Your task to perform on an android device: choose inbox layout in the gmail app Image 0: 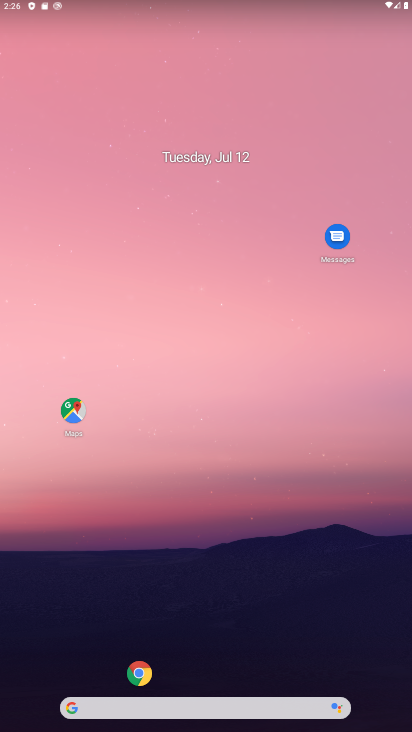
Step 0: drag from (17, 717) to (252, 9)
Your task to perform on an android device: choose inbox layout in the gmail app Image 1: 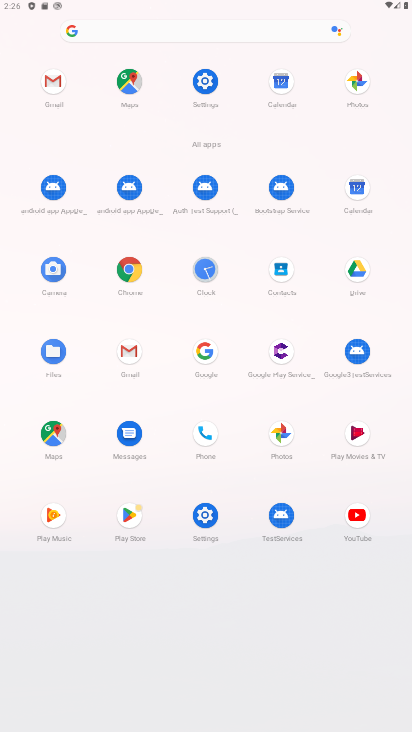
Step 1: click (135, 353)
Your task to perform on an android device: choose inbox layout in the gmail app Image 2: 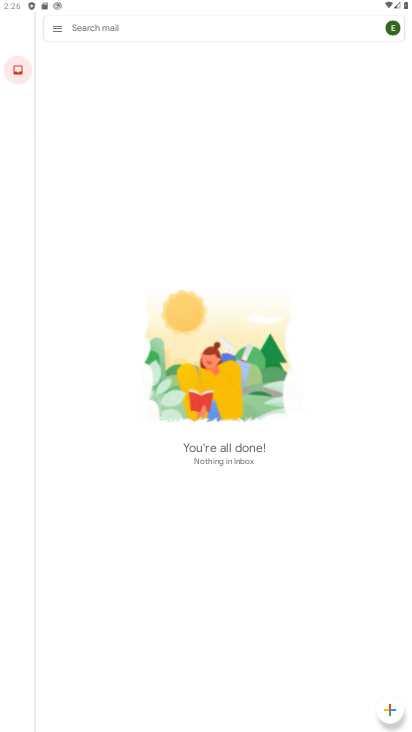
Step 2: click (61, 26)
Your task to perform on an android device: choose inbox layout in the gmail app Image 3: 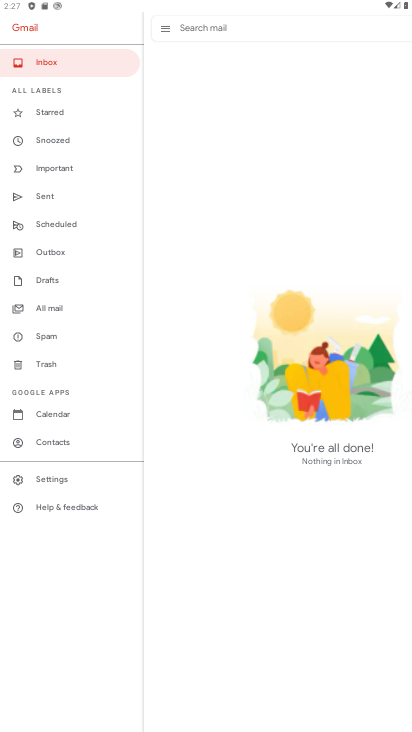
Step 3: click (69, 66)
Your task to perform on an android device: choose inbox layout in the gmail app Image 4: 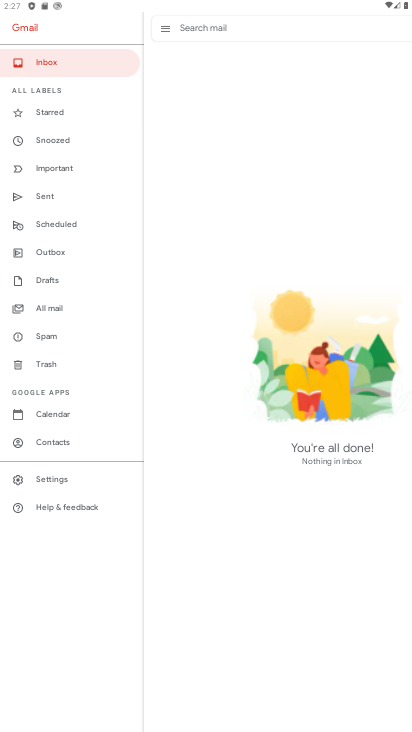
Step 4: click (59, 53)
Your task to perform on an android device: choose inbox layout in the gmail app Image 5: 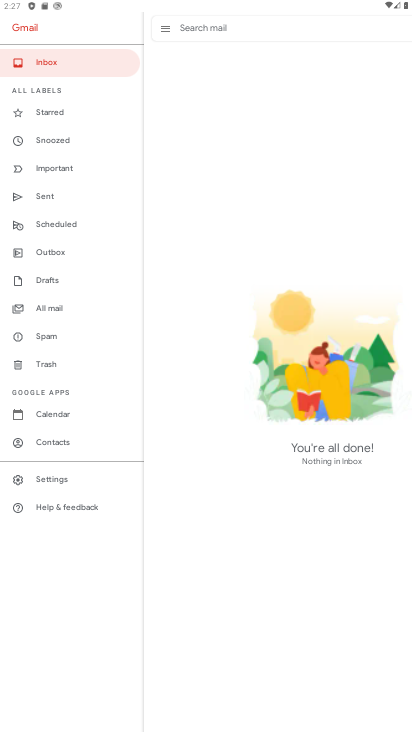
Step 5: click (56, 62)
Your task to perform on an android device: choose inbox layout in the gmail app Image 6: 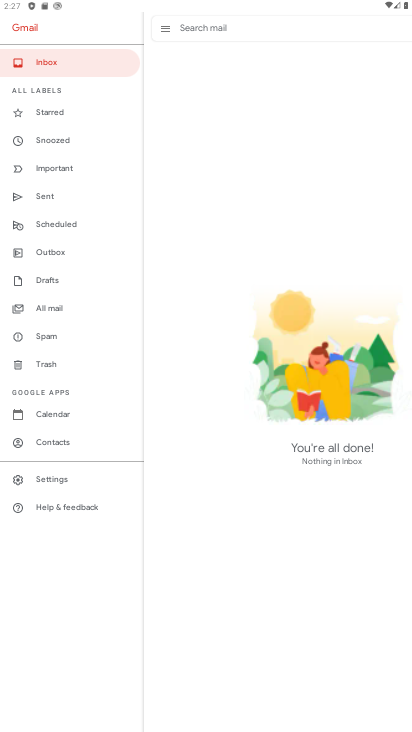
Step 6: click (73, 58)
Your task to perform on an android device: choose inbox layout in the gmail app Image 7: 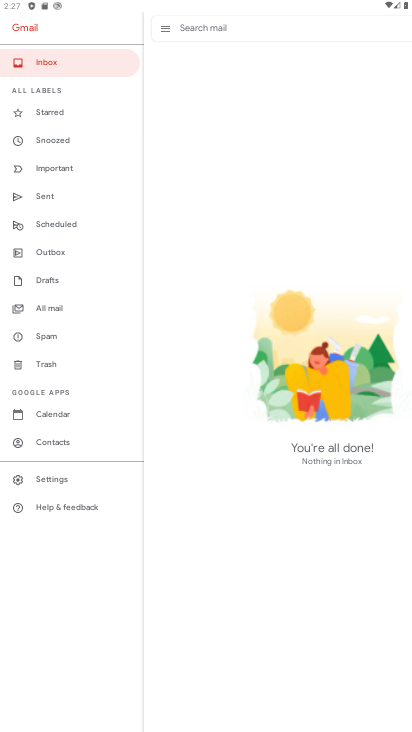
Step 7: task complete